Your task to perform on an android device: Find coffee shops on Maps Image 0: 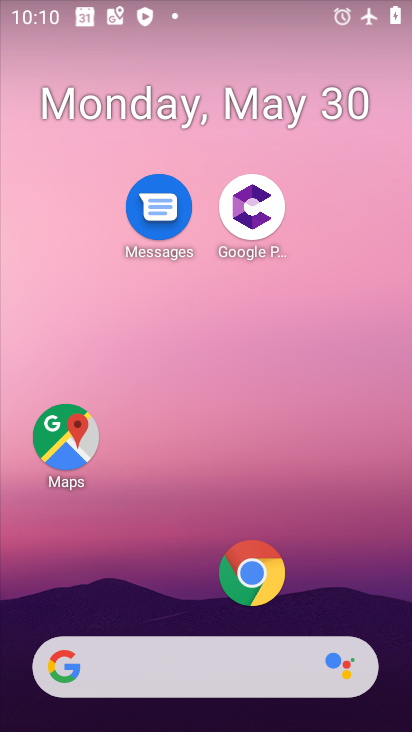
Step 0: drag from (213, 456) to (256, 57)
Your task to perform on an android device: Find coffee shops on Maps Image 1: 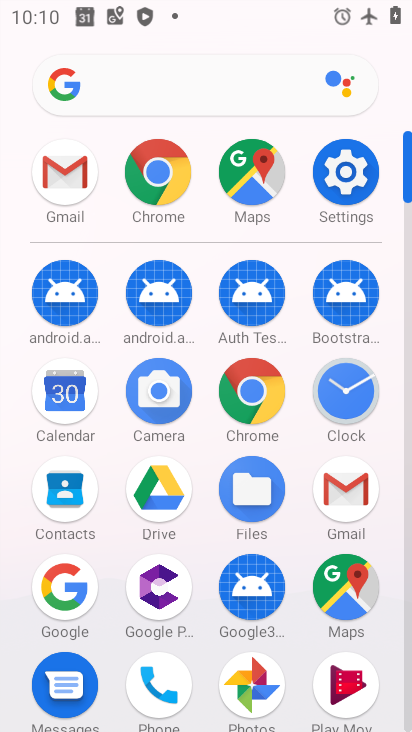
Step 1: click (341, 591)
Your task to perform on an android device: Find coffee shops on Maps Image 2: 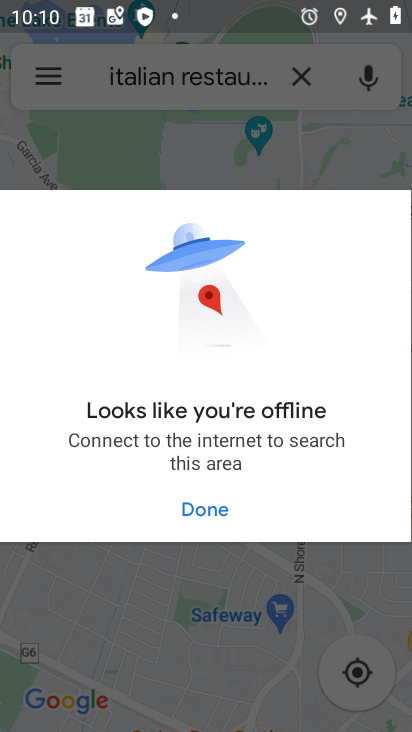
Step 2: click (224, 505)
Your task to perform on an android device: Find coffee shops on Maps Image 3: 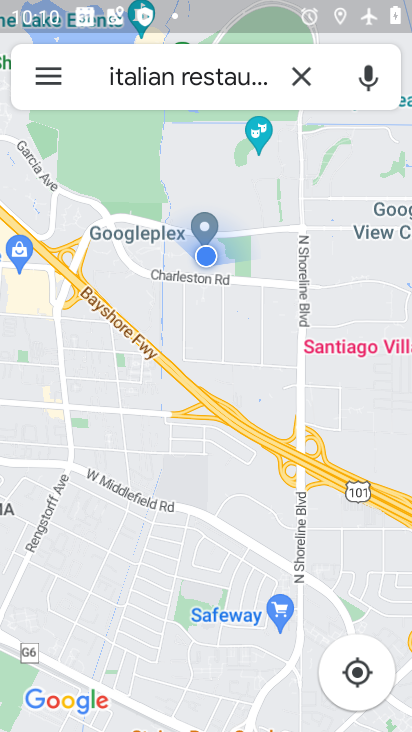
Step 3: click (305, 68)
Your task to perform on an android device: Find coffee shops on Maps Image 4: 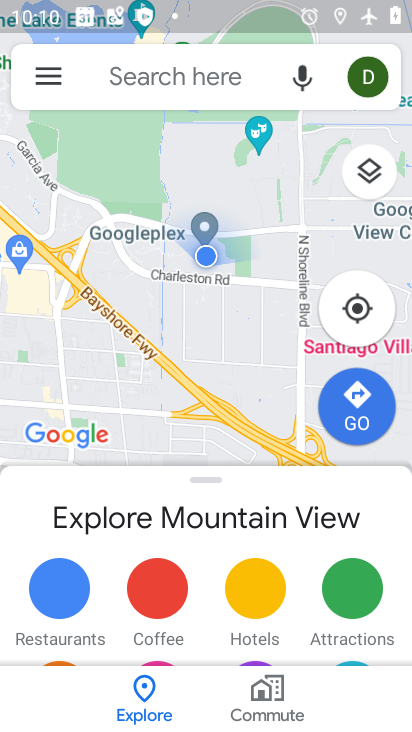
Step 4: task complete